Your task to perform on an android device: Open Google Chrome Image 0: 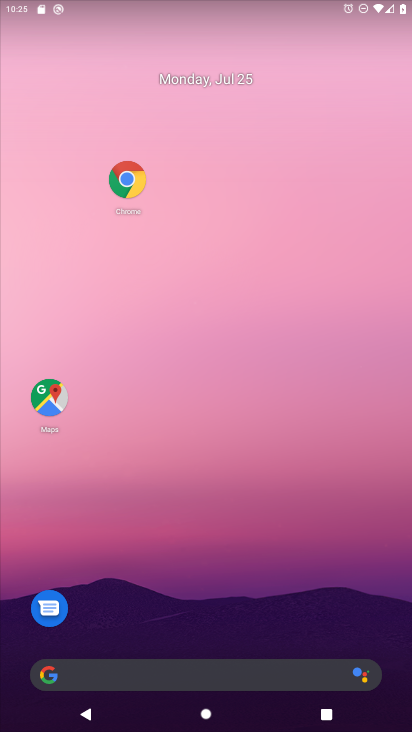
Step 0: click (131, 175)
Your task to perform on an android device: Open Google Chrome Image 1: 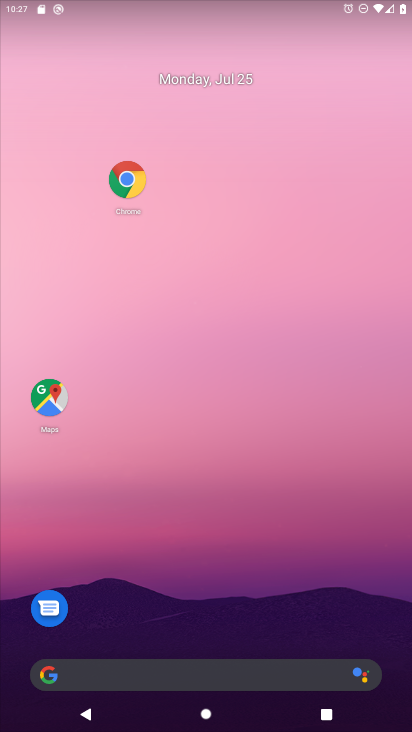
Step 1: click (125, 172)
Your task to perform on an android device: Open Google Chrome Image 2: 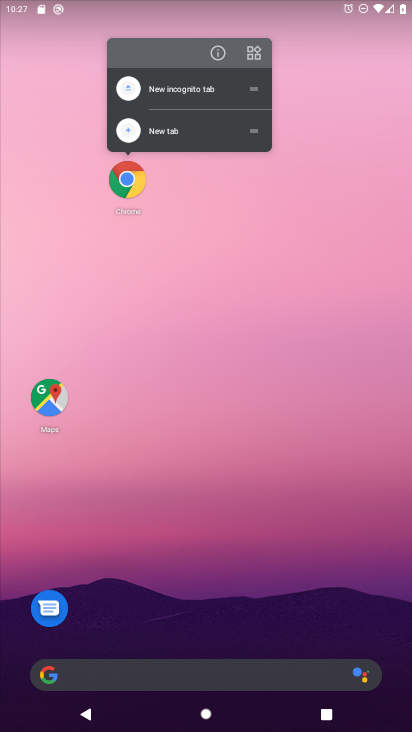
Step 2: click (124, 172)
Your task to perform on an android device: Open Google Chrome Image 3: 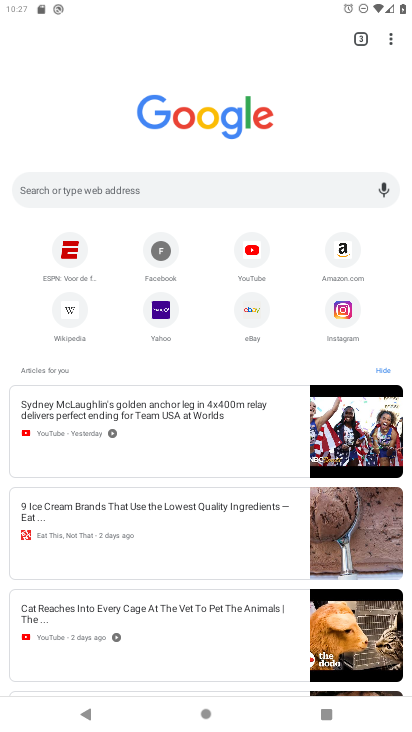
Step 3: task complete